Your task to perform on an android device: find snoozed emails in the gmail app Image 0: 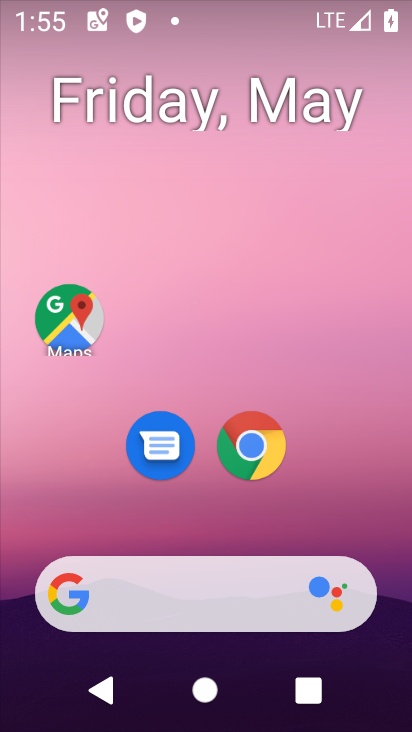
Step 0: press home button
Your task to perform on an android device: find snoozed emails in the gmail app Image 1: 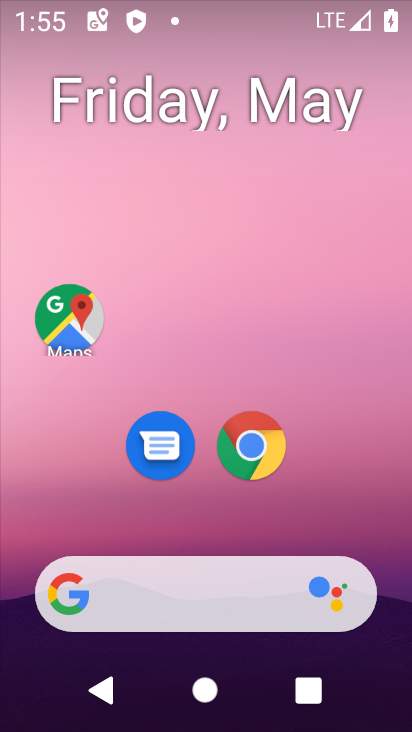
Step 1: drag from (202, 530) to (218, 56)
Your task to perform on an android device: find snoozed emails in the gmail app Image 2: 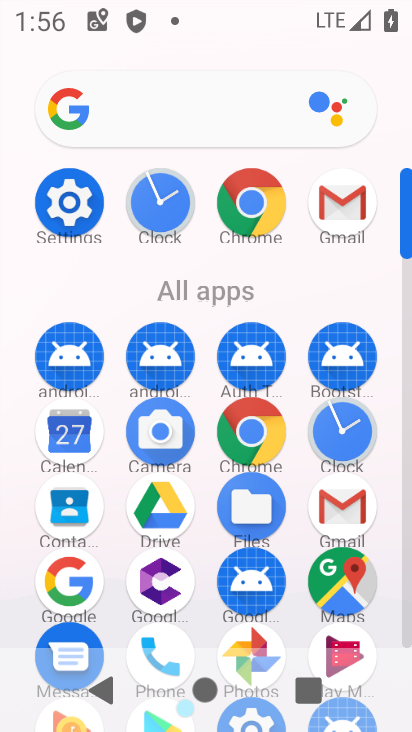
Step 2: click (338, 492)
Your task to perform on an android device: find snoozed emails in the gmail app Image 3: 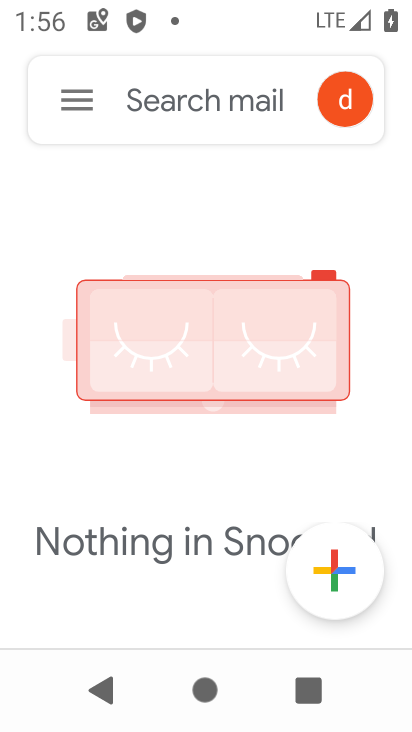
Step 3: click (72, 92)
Your task to perform on an android device: find snoozed emails in the gmail app Image 4: 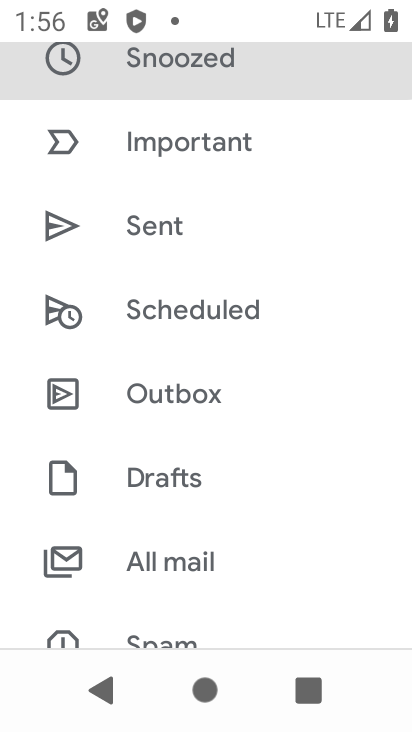
Step 4: click (116, 85)
Your task to perform on an android device: find snoozed emails in the gmail app Image 5: 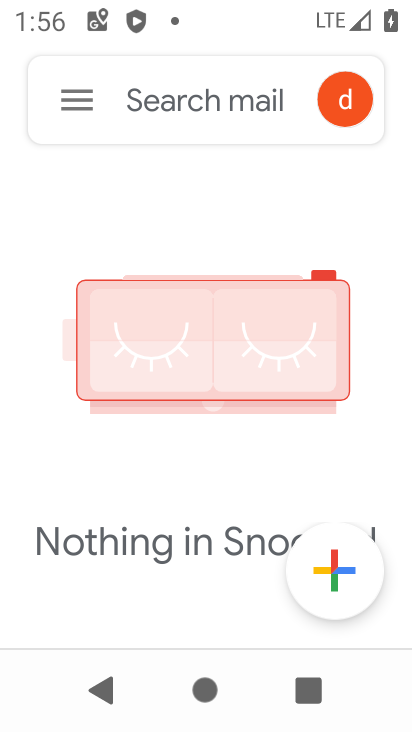
Step 5: task complete